Your task to perform on an android device: Open the calendar app, open the side menu, and click the "Day" option Image 0: 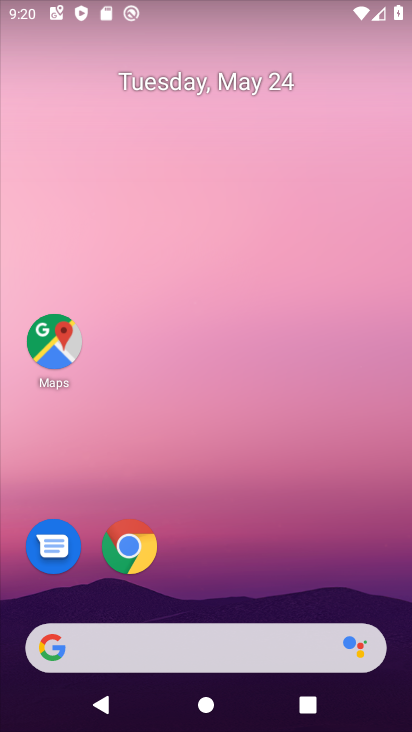
Step 0: drag from (214, 537) to (251, 32)
Your task to perform on an android device: Open the calendar app, open the side menu, and click the "Day" option Image 1: 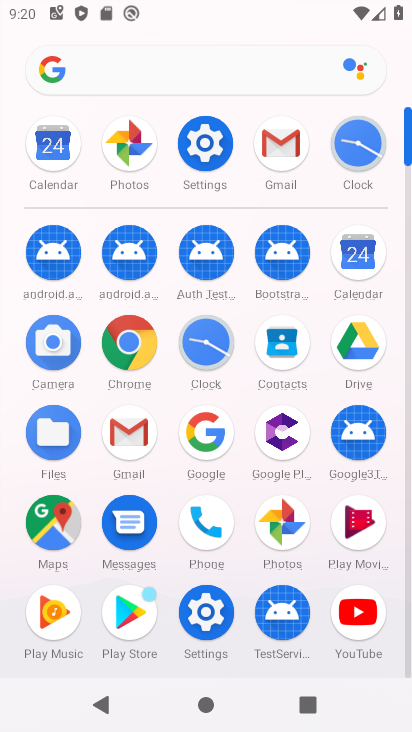
Step 1: click (61, 145)
Your task to perform on an android device: Open the calendar app, open the side menu, and click the "Day" option Image 2: 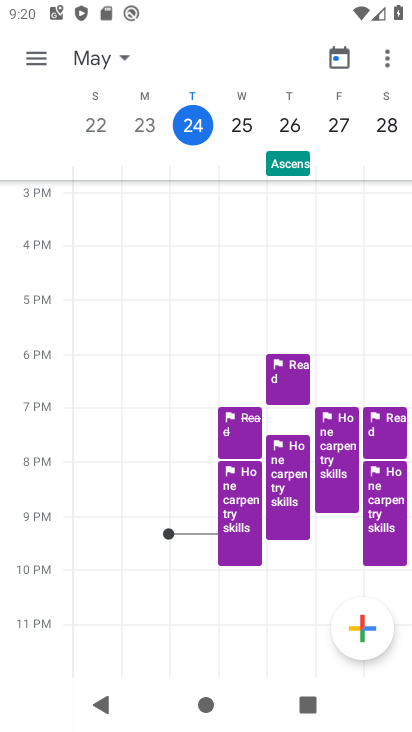
Step 2: click (39, 54)
Your task to perform on an android device: Open the calendar app, open the side menu, and click the "Day" option Image 3: 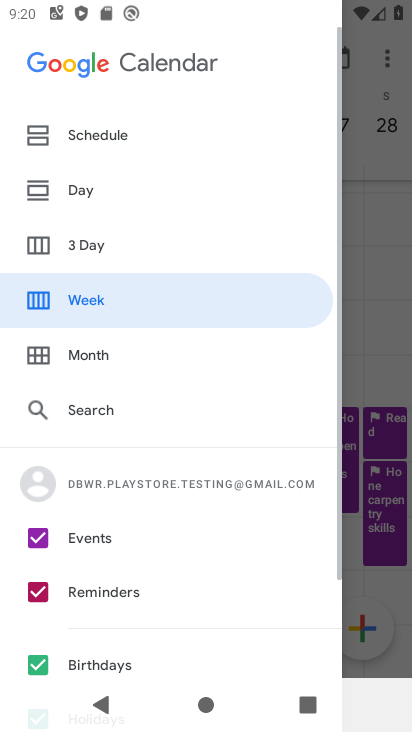
Step 3: click (43, 183)
Your task to perform on an android device: Open the calendar app, open the side menu, and click the "Day" option Image 4: 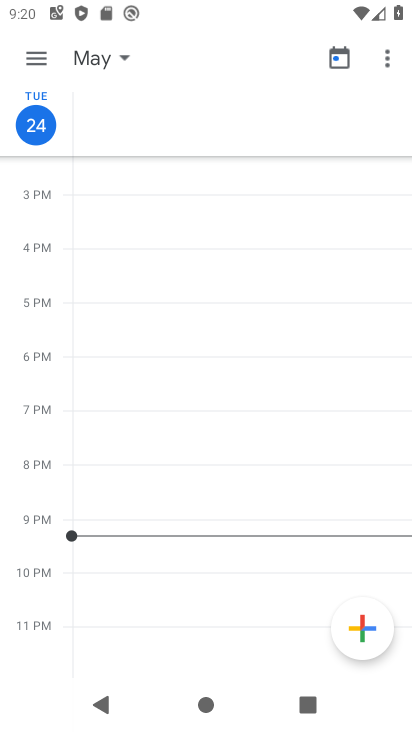
Step 4: task complete